Your task to perform on an android device: change notification settings in the gmail app Image 0: 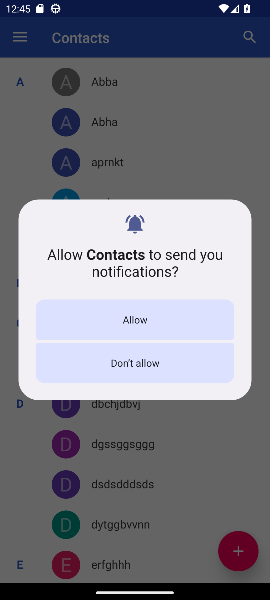
Step 0: press home button
Your task to perform on an android device: change notification settings in the gmail app Image 1: 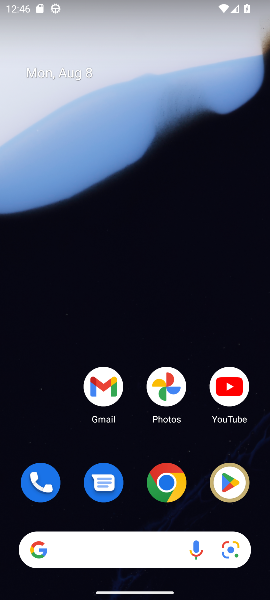
Step 1: click (108, 378)
Your task to perform on an android device: change notification settings in the gmail app Image 2: 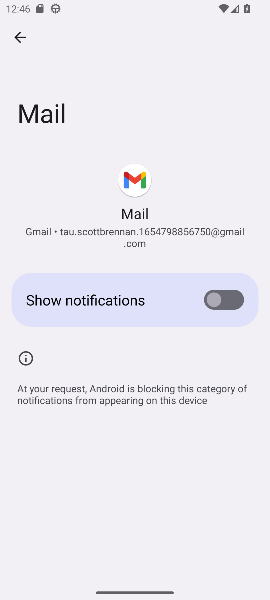
Step 2: press back button
Your task to perform on an android device: change notification settings in the gmail app Image 3: 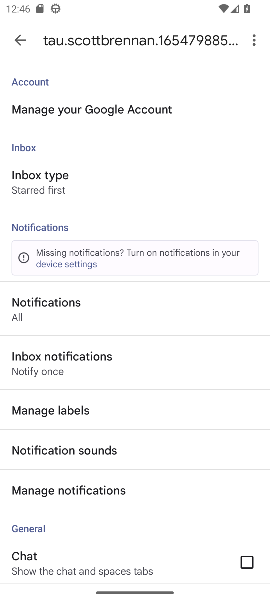
Step 3: click (40, 495)
Your task to perform on an android device: change notification settings in the gmail app Image 4: 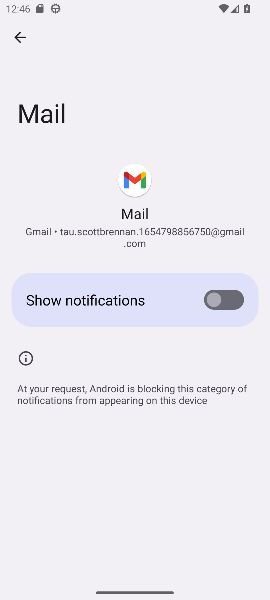
Step 4: click (223, 300)
Your task to perform on an android device: change notification settings in the gmail app Image 5: 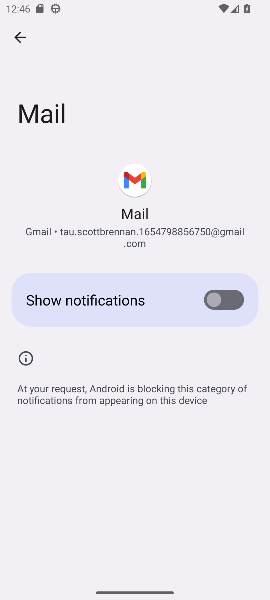
Step 5: task complete